Your task to perform on an android device: toggle show notifications on the lock screen Image 0: 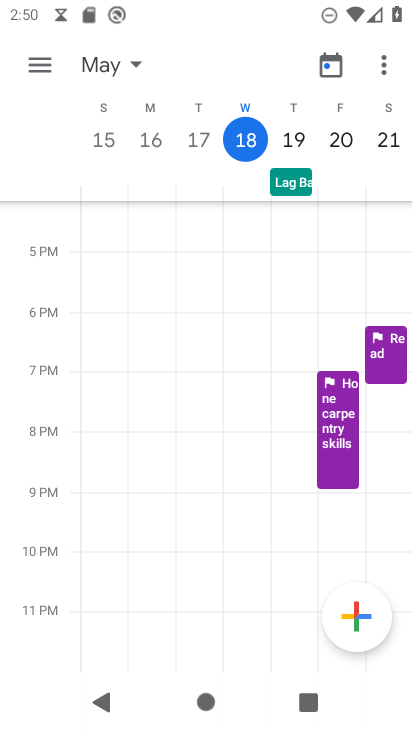
Step 0: press home button
Your task to perform on an android device: toggle show notifications on the lock screen Image 1: 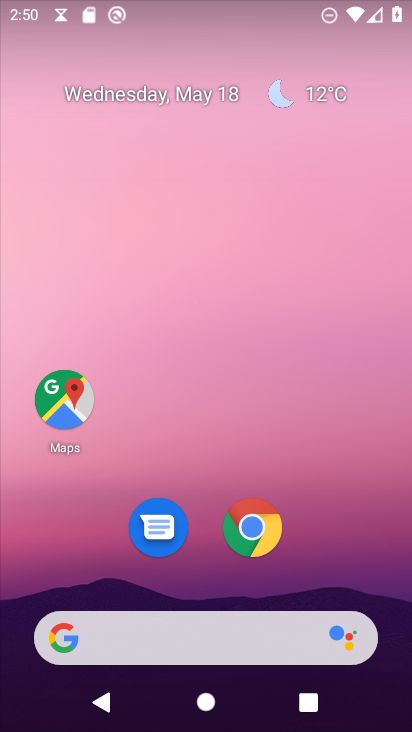
Step 1: drag from (348, 547) to (199, 72)
Your task to perform on an android device: toggle show notifications on the lock screen Image 2: 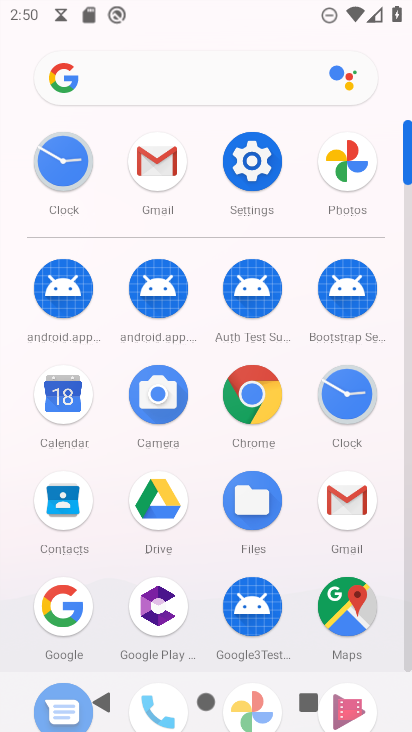
Step 2: click (252, 171)
Your task to perform on an android device: toggle show notifications on the lock screen Image 3: 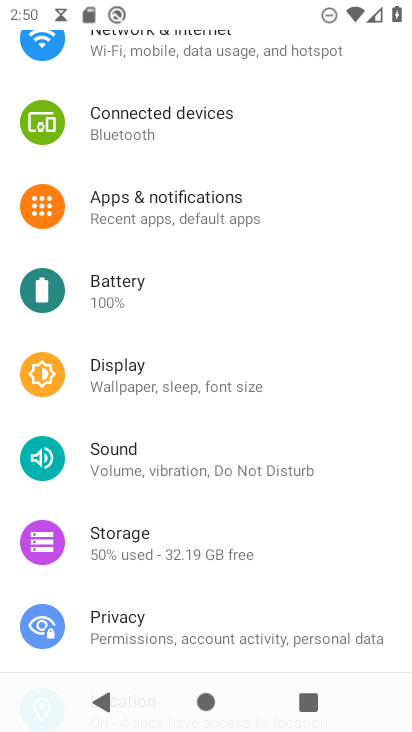
Step 3: click (224, 208)
Your task to perform on an android device: toggle show notifications on the lock screen Image 4: 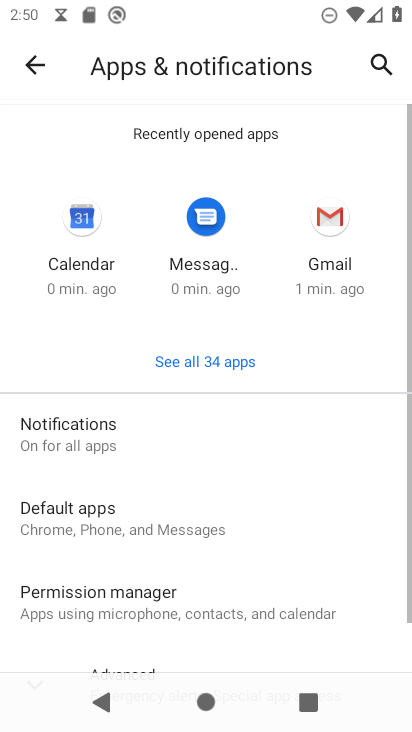
Step 4: click (204, 436)
Your task to perform on an android device: toggle show notifications on the lock screen Image 5: 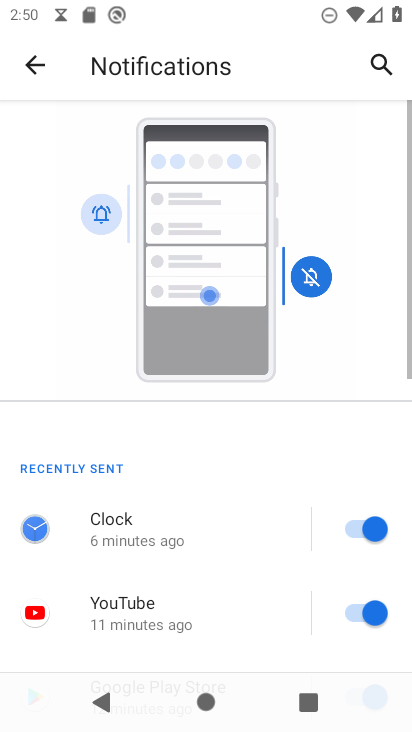
Step 5: drag from (261, 558) to (229, 178)
Your task to perform on an android device: toggle show notifications on the lock screen Image 6: 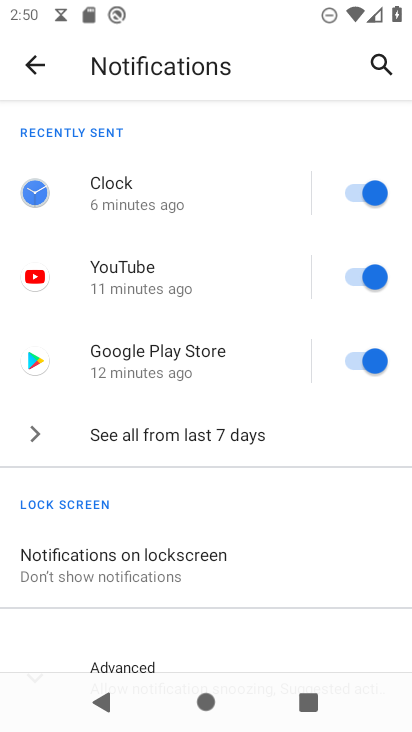
Step 6: click (232, 559)
Your task to perform on an android device: toggle show notifications on the lock screen Image 7: 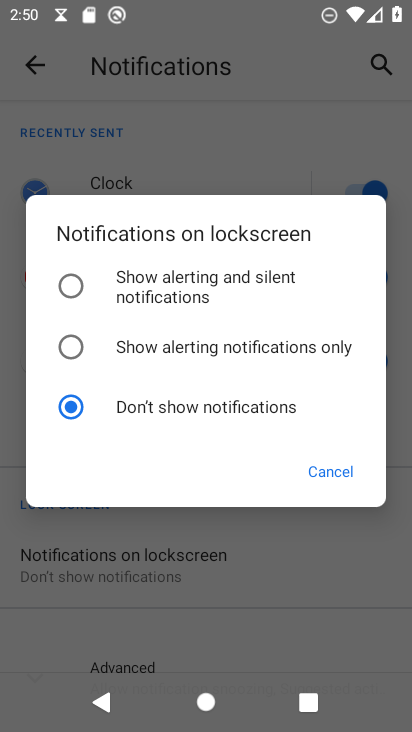
Step 7: click (153, 288)
Your task to perform on an android device: toggle show notifications on the lock screen Image 8: 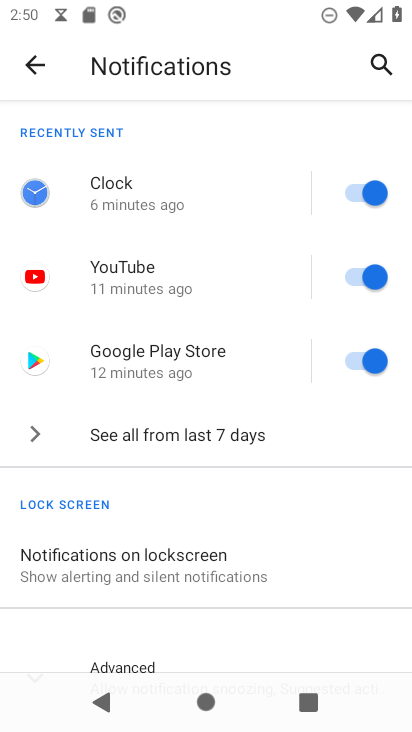
Step 8: task complete